Your task to perform on an android device: toggle data saver in the chrome app Image 0: 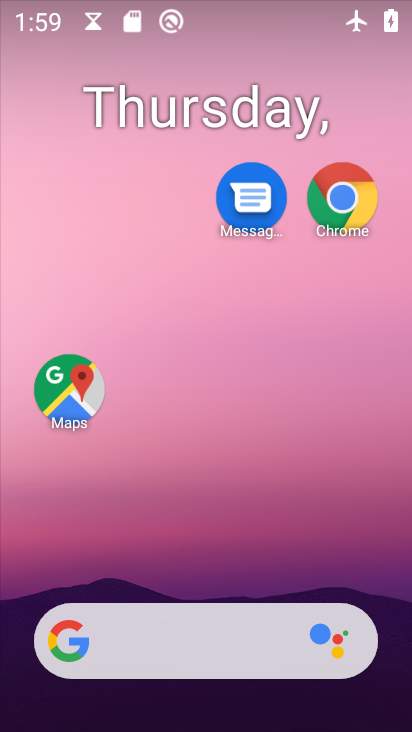
Step 0: click (338, 203)
Your task to perform on an android device: toggle data saver in the chrome app Image 1: 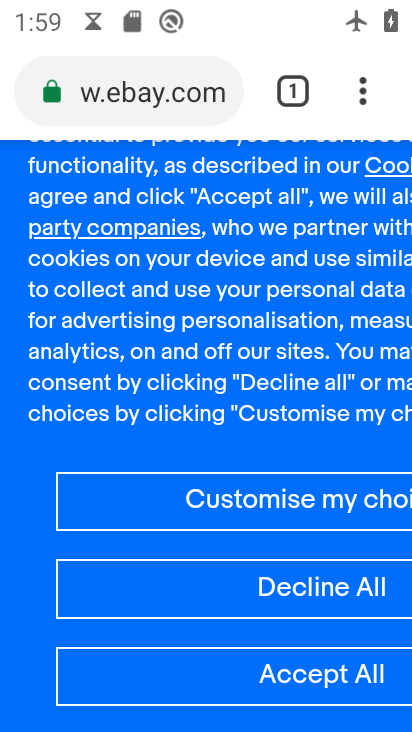
Step 1: click (366, 88)
Your task to perform on an android device: toggle data saver in the chrome app Image 2: 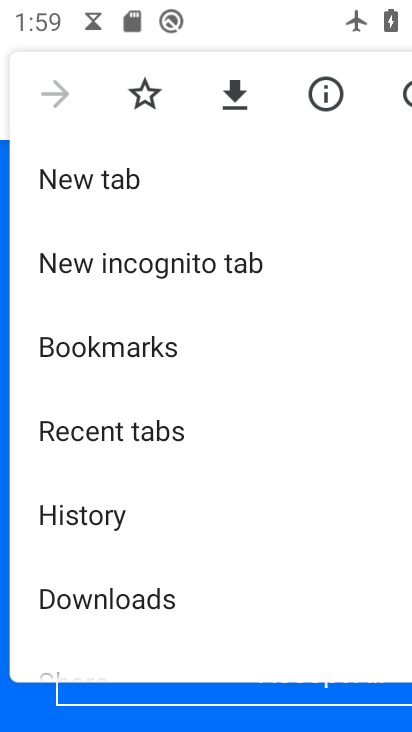
Step 2: click (127, 137)
Your task to perform on an android device: toggle data saver in the chrome app Image 3: 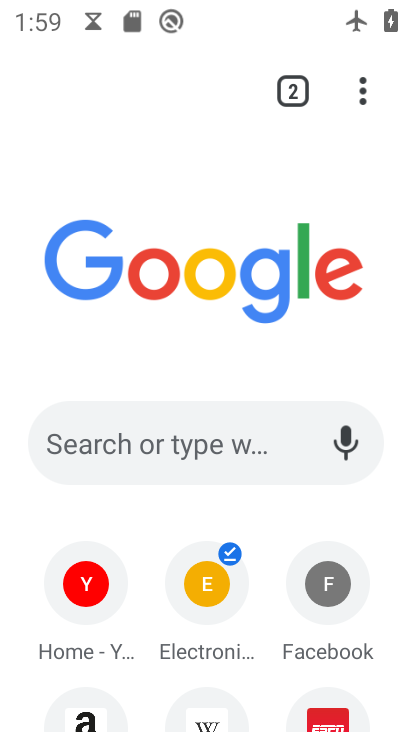
Step 3: click (363, 96)
Your task to perform on an android device: toggle data saver in the chrome app Image 4: 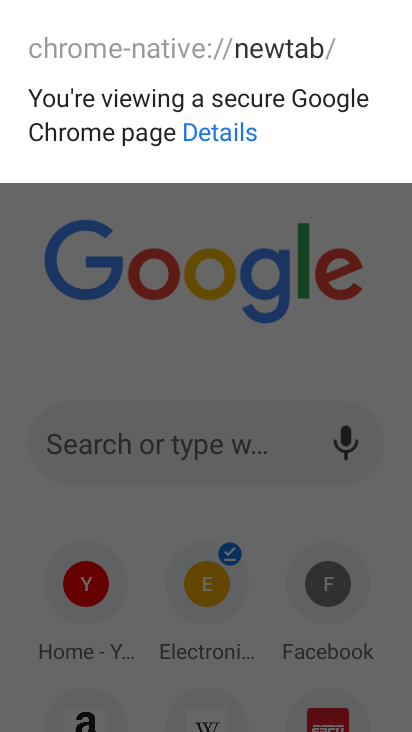
Step 4: click (297, 245)
Your task to perform on an android device: toggle data saver in the chrome app Image 5: 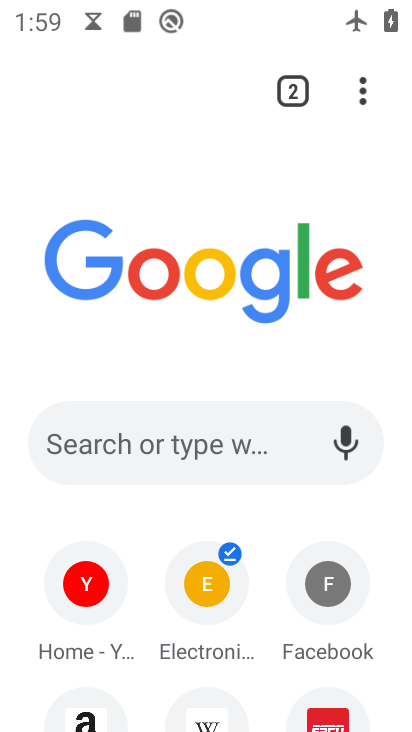
Step 5: click (359, 98)
Your task to perform on an android device: toggle data saver in the chrome app Image 6: 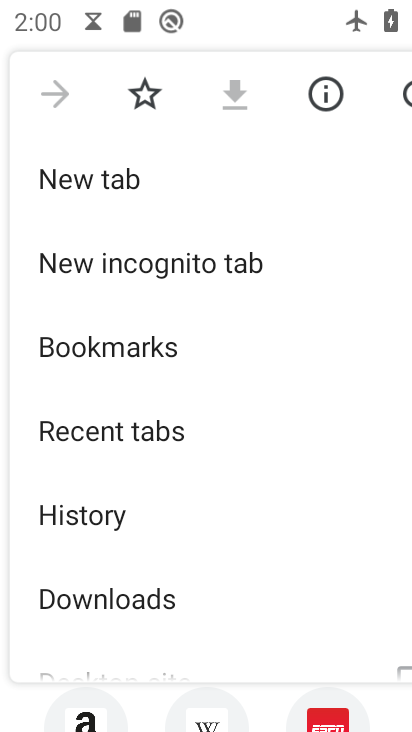
Step 6: drag from (151, 586) to (155, 176)
Your task to perform on an android device: toggle data saver in the chrome app Image 7: 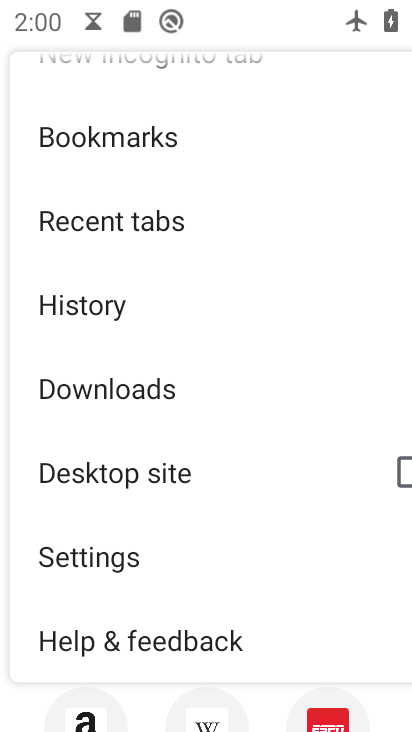
Step 7: click (130, 561)
Your task to perform on an android device: toggle data saver in the chrome app Image 8: 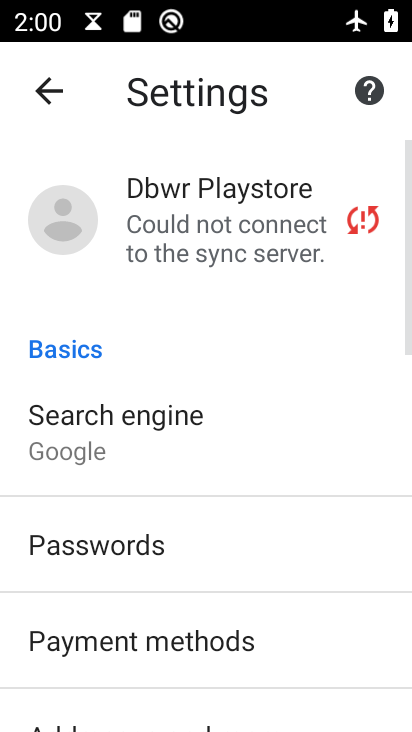
Step 8: drag from (173, 454) to (217, 244)
Your task to perform on an android device: toggle data saver in the chrome app Image 9: 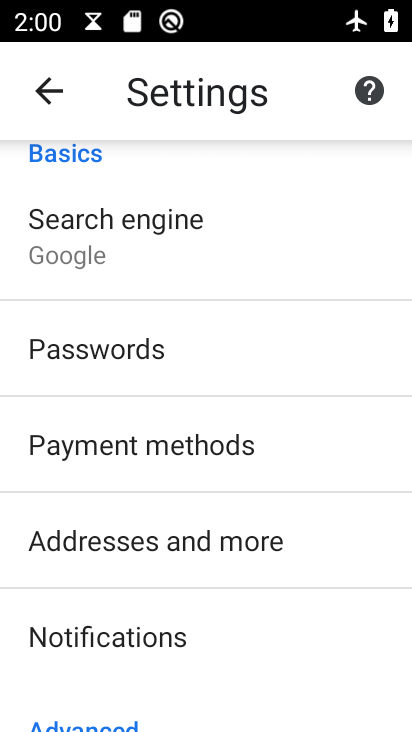
Step 9: drag from (219, 302) to (224, 252)
Your task to perform on an android device: toggle data saver in the chrome app Image 10: 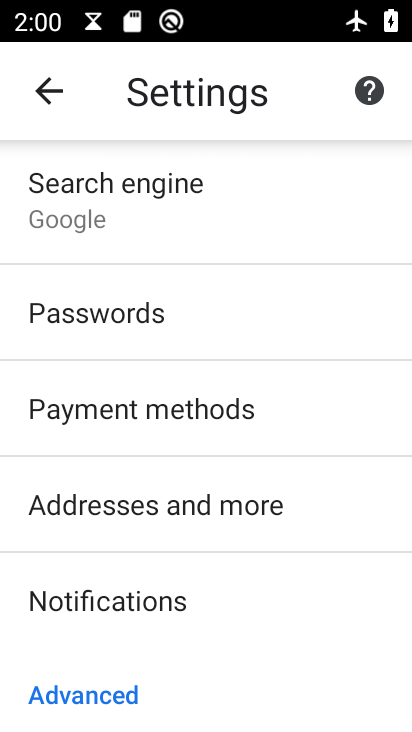
Step 10: drag from (163, 619) to (197, 375)
Your task to perform on an android device: toggle data saver in the chrome app Image 11: 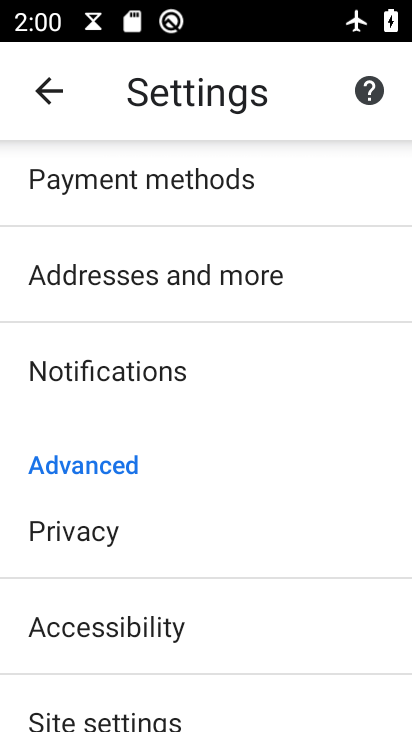
Step 11: click (131, 718)
Your task to perform on an android device: toggle data saver in the chrome app Image 12: 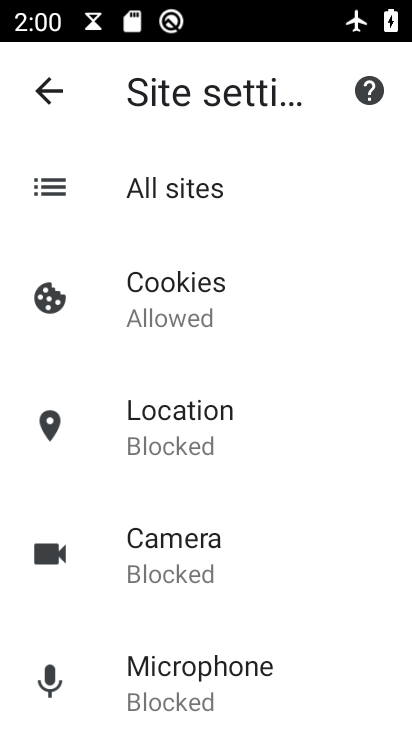
Step 12: click (63, 97)
Your task to perform on an android device: toggle data saver in the chrome app Image 13: 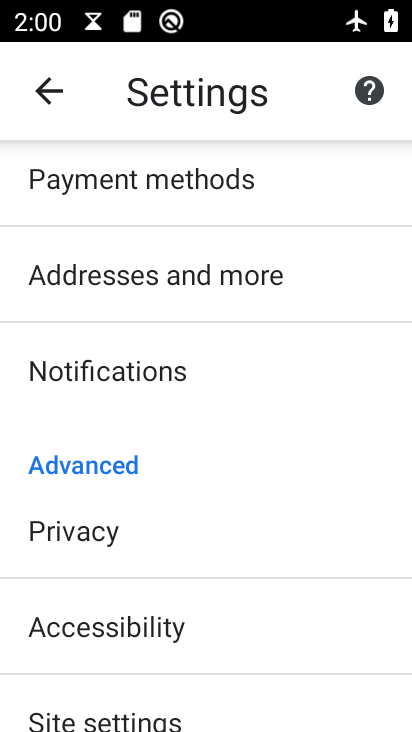
Step 13: click (246, 201)
Your task to perform on an android device: toggle data saver in the chrome app Image 14: 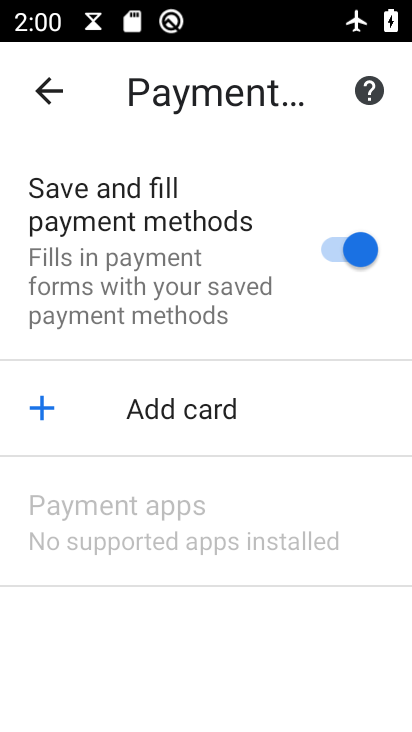
Step 14: click (44, 106)
Your task to perform on an android device: toggle data saver in the chrome app Image 15: 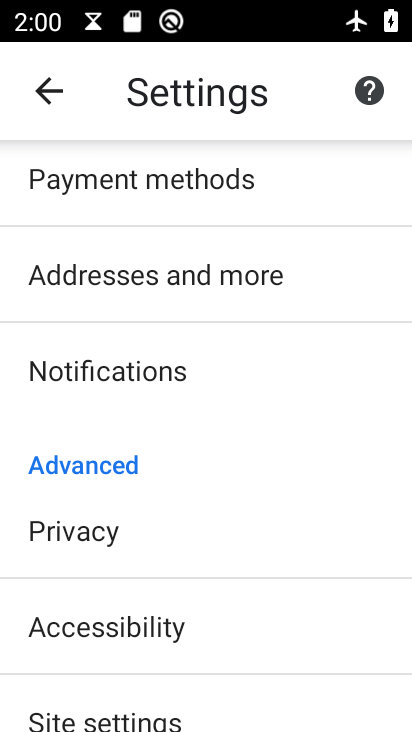
Step 15: drag from (179, 653) to (239, 237)
Your task to perform on an android device: toggle data saver in the chrome app Image 16: 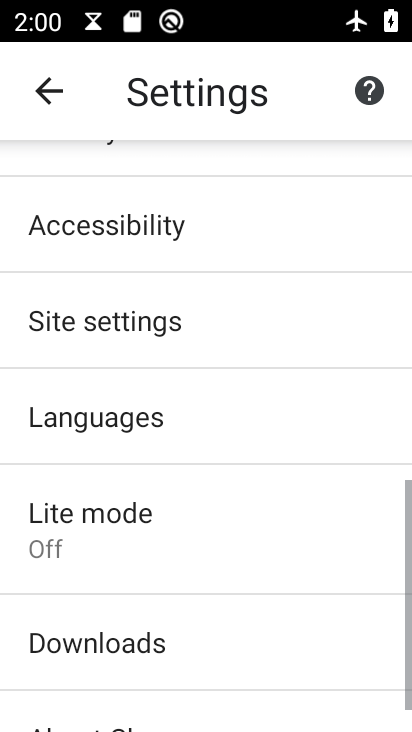
Step 16: drag from (167, 632) to (224, 254)
Your task to perform on an android device: toggle data saver in the chrome app Image 17: 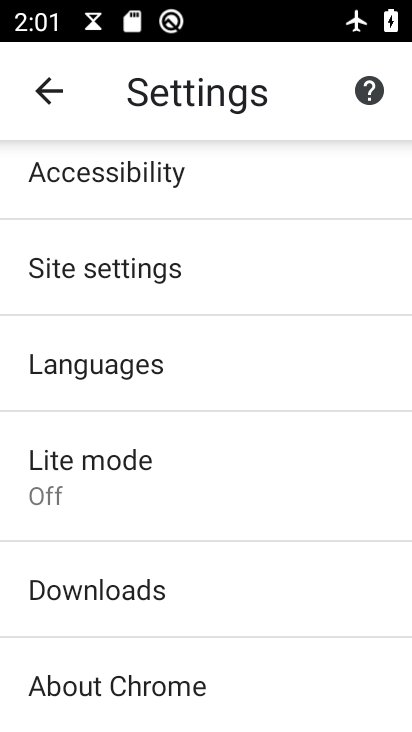
Step 17: click (138, 369)
Your task to perform on an android device: toggle data saver in the chrome app Image 18: 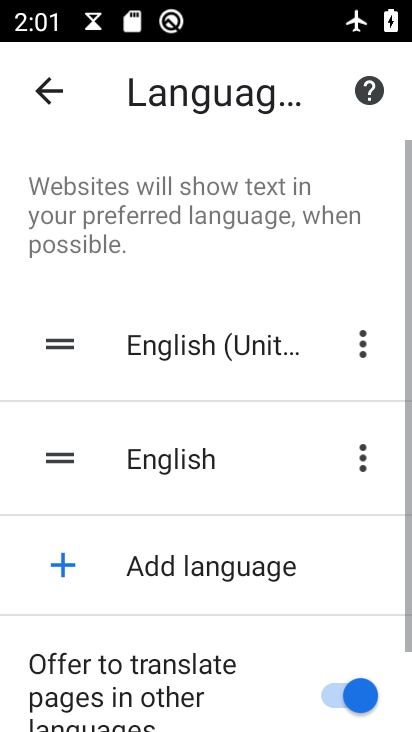
Step 18: press back button
Your task to perform on an android device: toggle data saver in the chrome app Image 19: 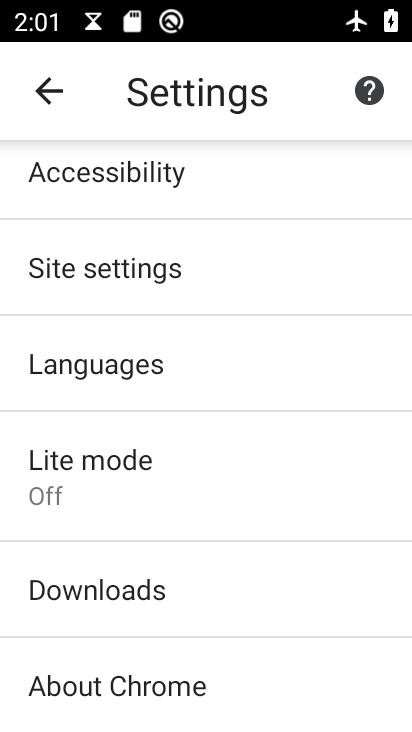
Step 19: drag from (163, 457) to (183, 345)
Your task to perform on an android device: toggle data saver in the chrome app Image 20: 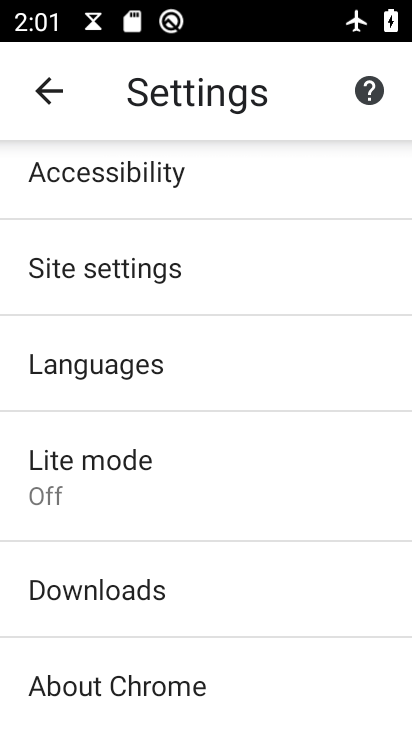
Step 20: click (136, 488)
Your task to perform on an android device: toggle data saver in the chrome app Image 21: 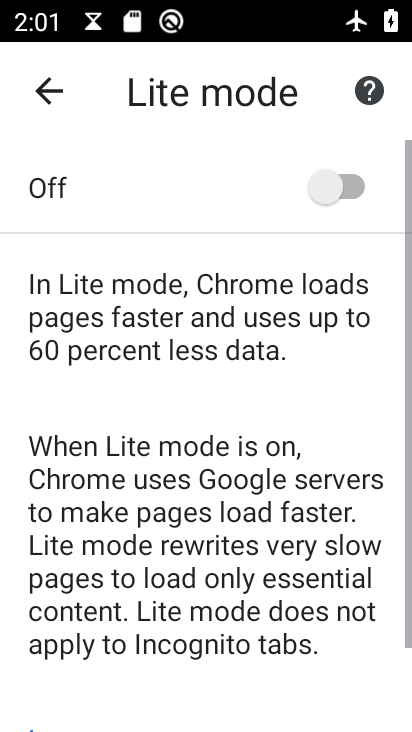
Step 21: click (103, 464)
Your task to perform on an android device: toggle data saver in the chrome app Image 22: 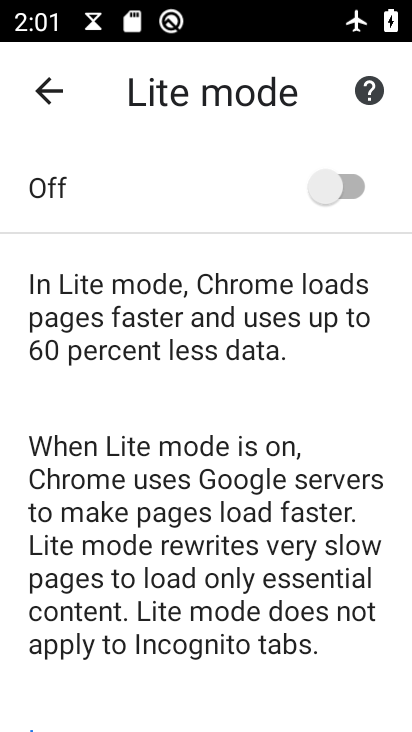
Step 22: click (357, 193)
Your task to perform on an android device: toggle data saver in the chrome app Image 23: 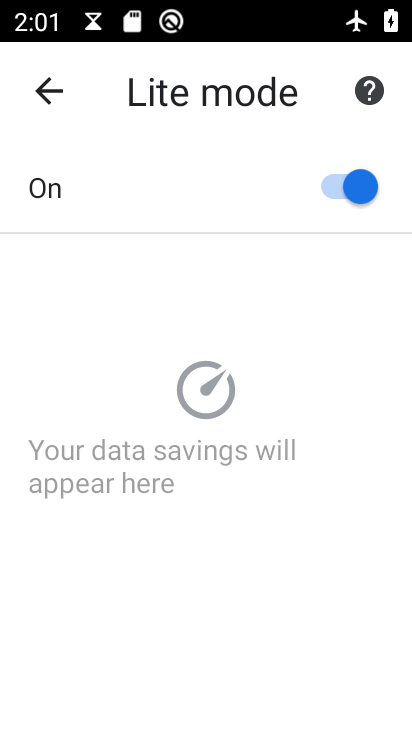
Step 23: click (357, 193)
Your task to perform on an android device: toggle data saver in the chrome app Image 24: 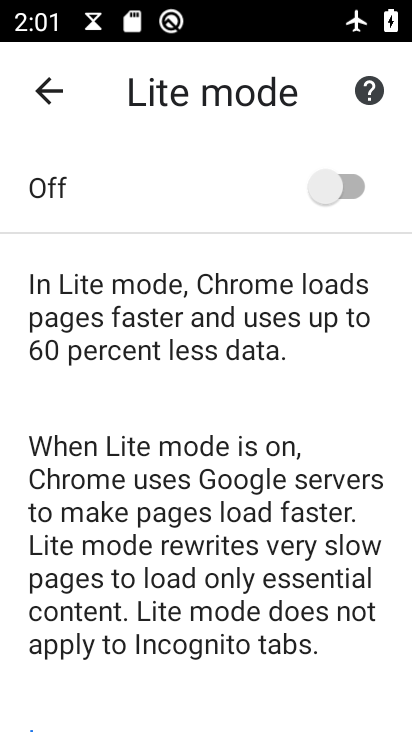
Step 24: click (358, 187)
Your task to perform on an android device: toggle data saver in the chrome app Image 25: 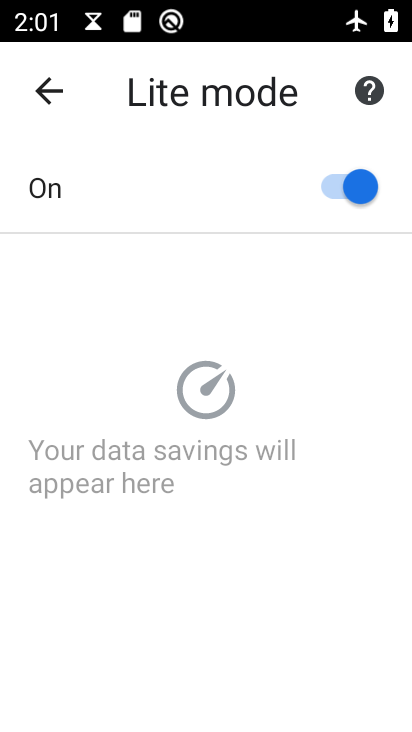
Step 25: task complete